Your task to perform on an android device: set default search engine in the chrome app Image 0: 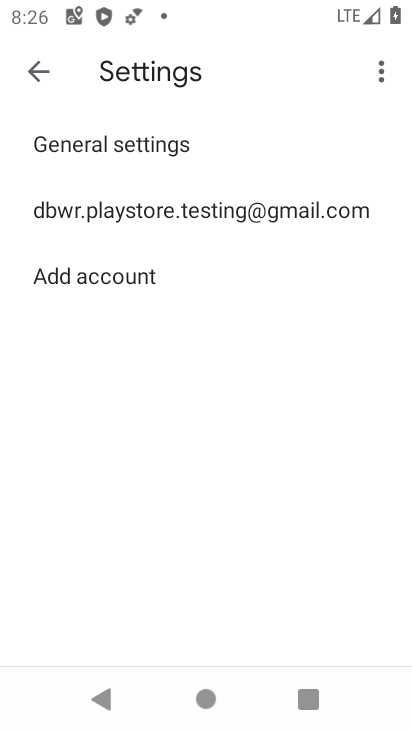
Step 0: press home button
Your task to perform on an android device: set default search engine in the chrome app Image 1: 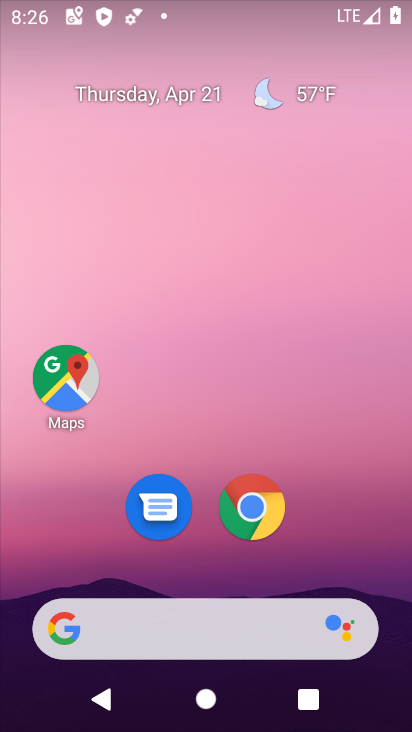
Step 1: drag from (371, 505) to (336, 55)
Your task to perform on an android device: set default search engine in the chrome app Image 2: 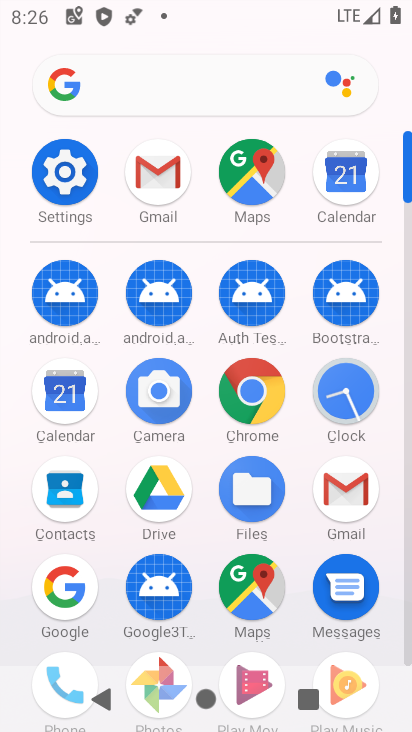
Step 2: click (269, 404)
Your task to perform on an android device: set default search engine in the chrome app Image 3: 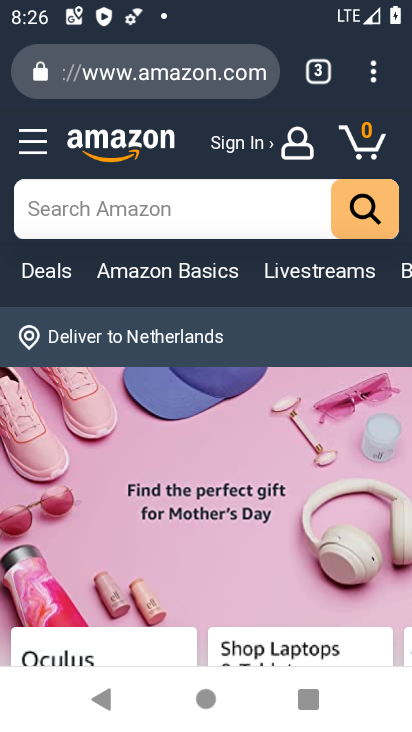
Step 3: drag from (378, 66) to (194, 509)
Your task to perform on an android device: set default search engine in the chrome app Image 4: 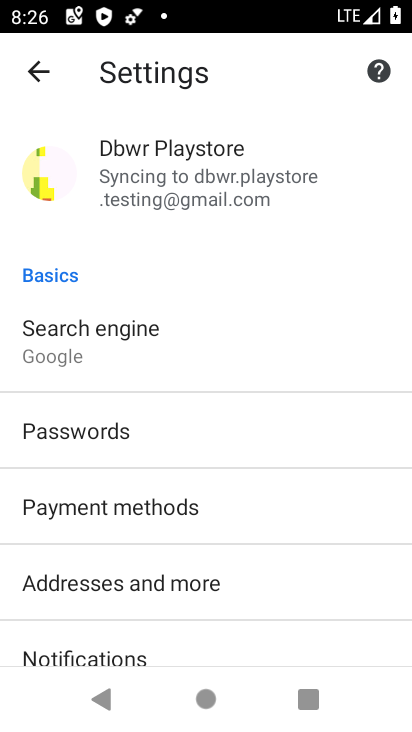
Step 4: click (172, 348)
Your task to perform on an android device: set default search engine in the chrome app Image 5: 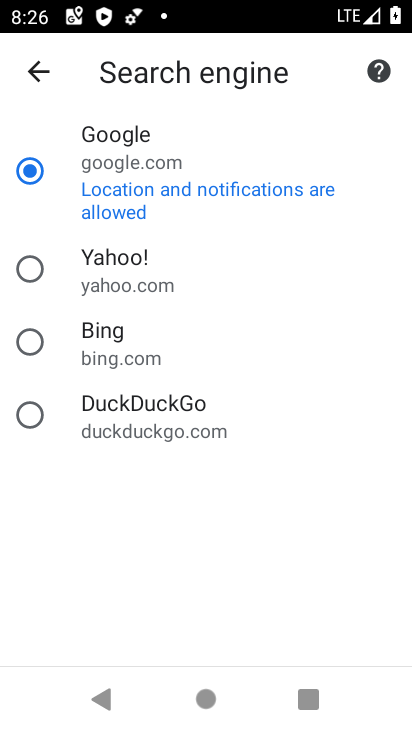
Step 5: click (144, 127)
Your task to perform on an android device: set default search engine in the chrome app Image 6: 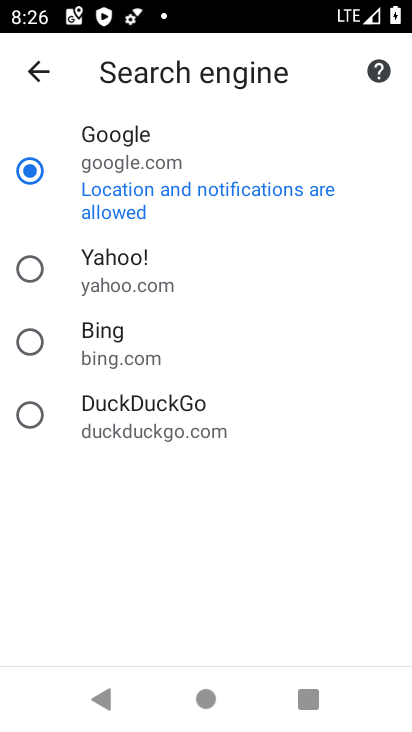
Step 6: task complete